Your task to perform on an android device: open sync settings in chrome Image 0: 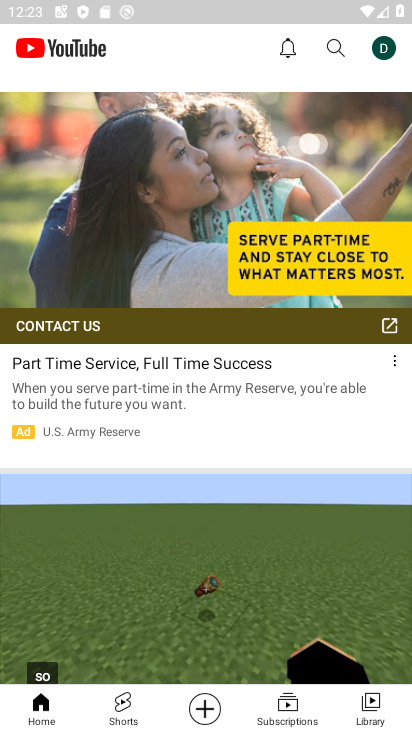
Step 0: press home button
Your task to perform on an android device: open sync settings in chrome Image 1: 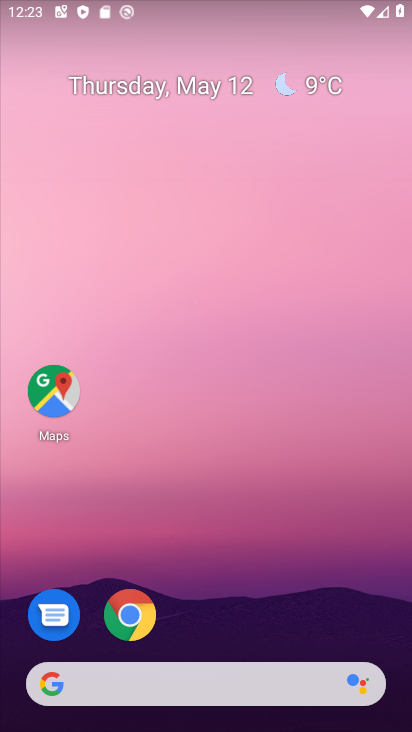
Step 1: drag from (252, 486) to (256, 27)
Your task to perform on an android device: open sync settings in chrome Image 2: 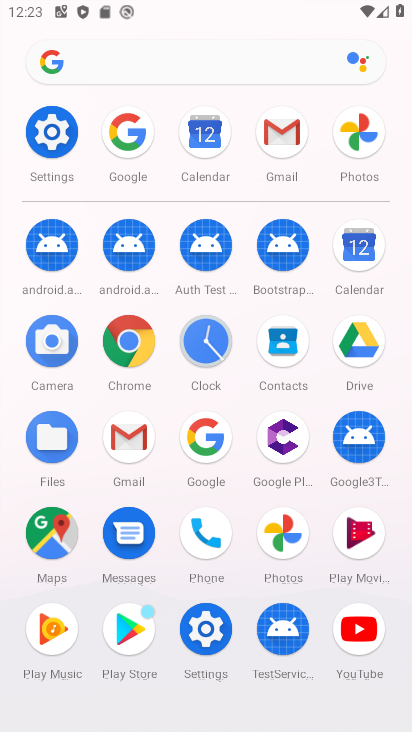
Step 2: click (124, 343)
Your task to perform on an android device: open sync settings in chrome Image 3: 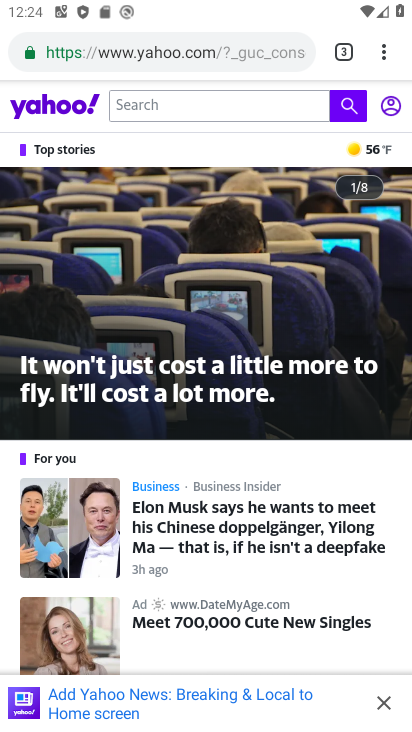
Step 3: drag from (394, 46) to (241, 641)
Your task to perform on an android device: open sync settings in chrome Image 4: 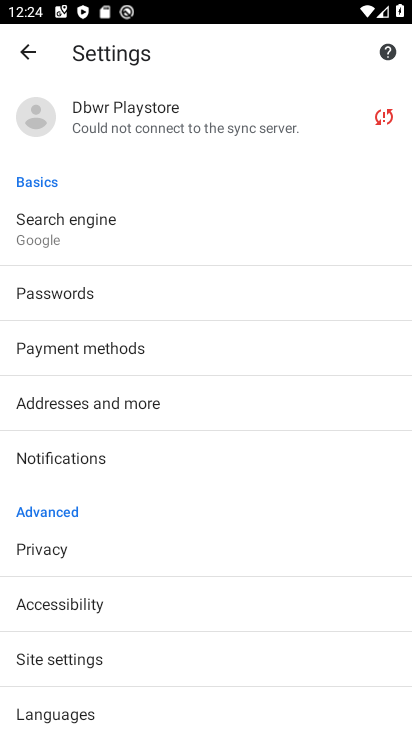
Step 4: click (167, 114)
Your task to perform on an android device: open sync settings in chrome Image 5: 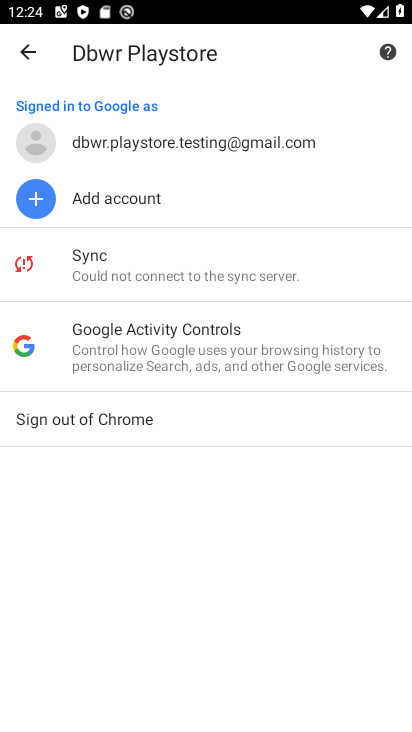
Step 5: click (143, 266)
Your task to perform on an android device: open sync settings in chrome Image 6: 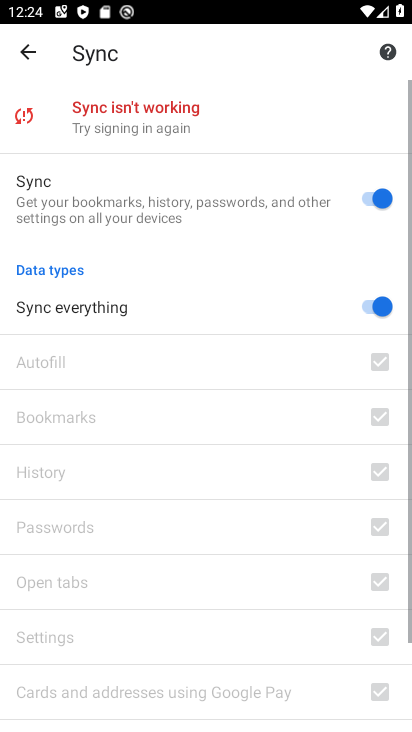
Step 6: task complete